Your task to perform on an android device: Search for "lg ultragear" on bestbuy, select the first entry, and add it to the cart. Image 0: 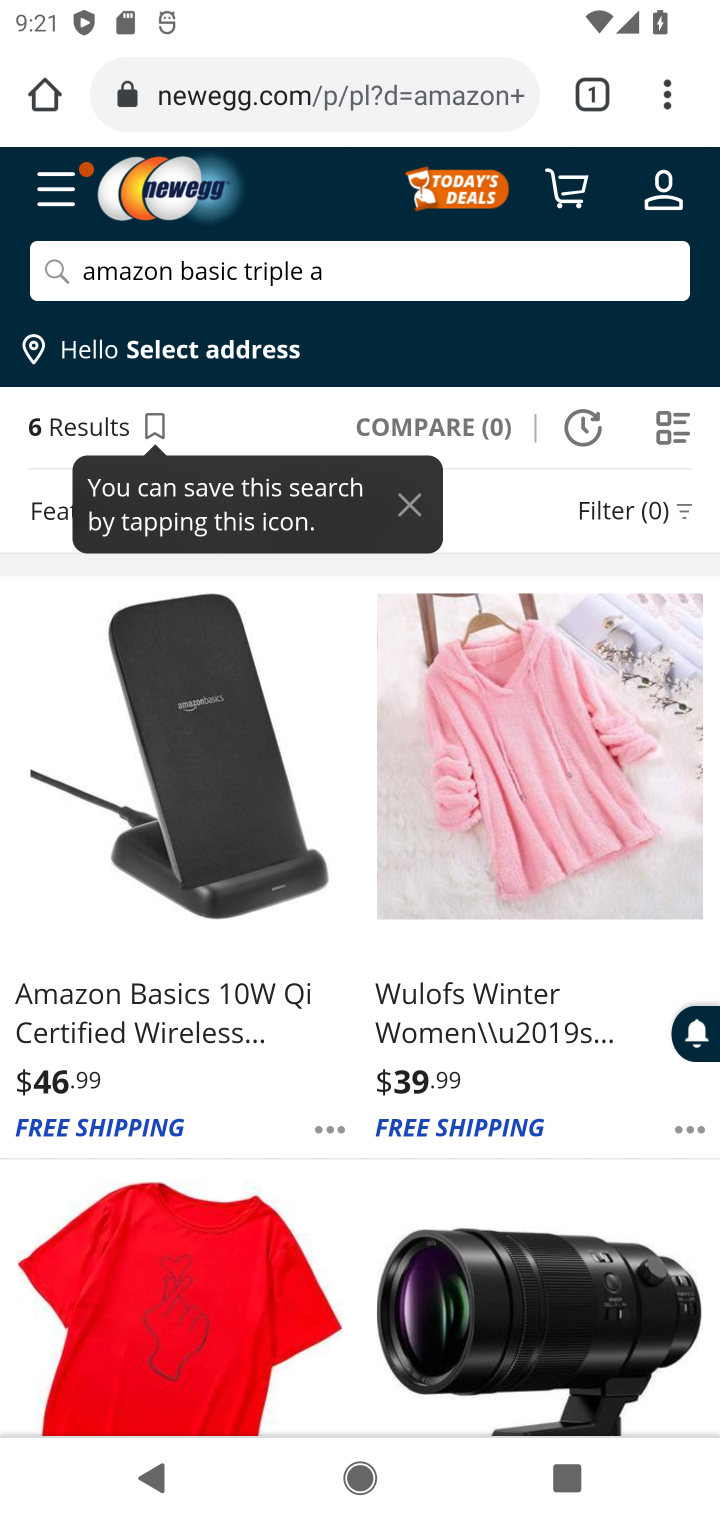
Step 0: press home button
Your task to perform on an android device: Search for "lg ultragear" on bestbuy, select the first entry, and add it to the cart. Image 1: 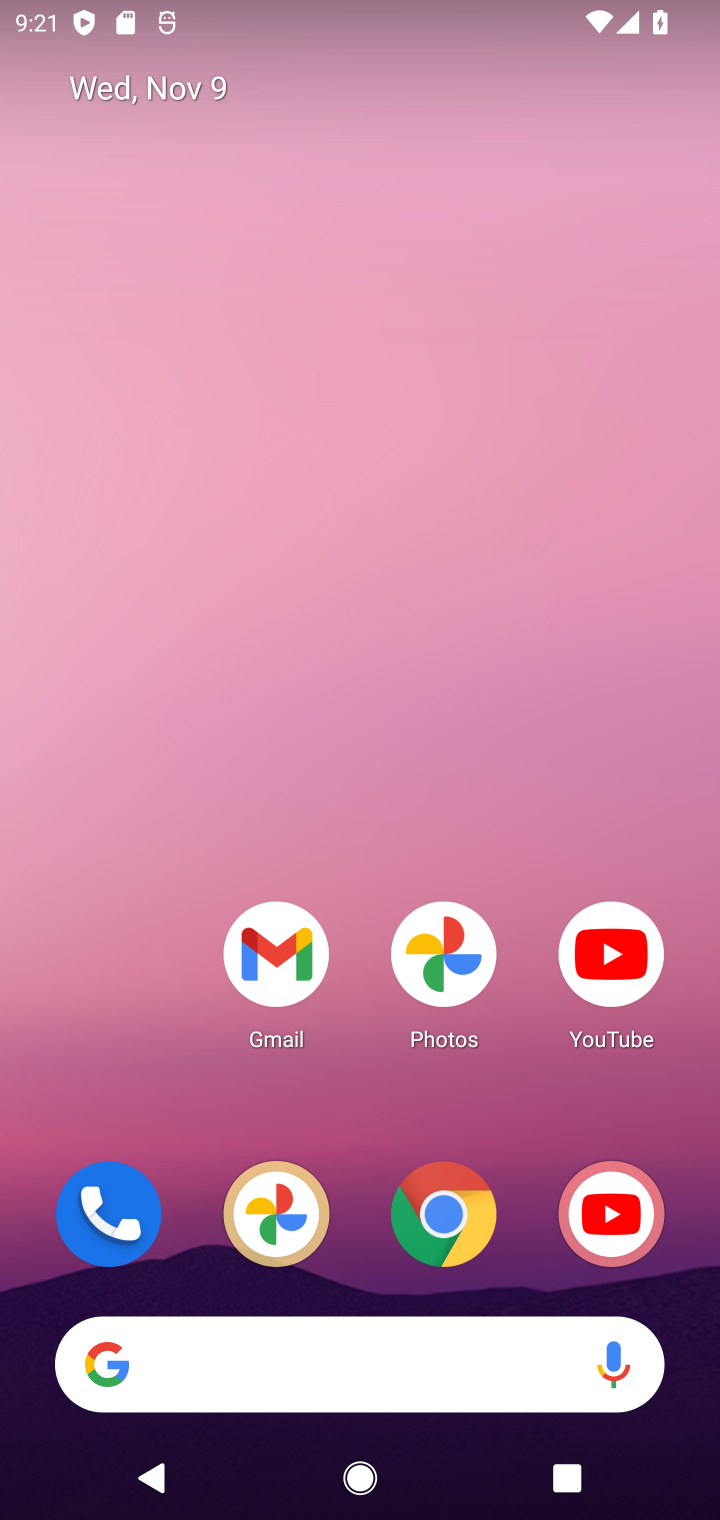
Step 1: drag from (397, 785) to (399, 8)
Your task to perform on an android device: Search for "lg ultragear" on bestbuy, select the first entry, and add it to the cart. Image 2: 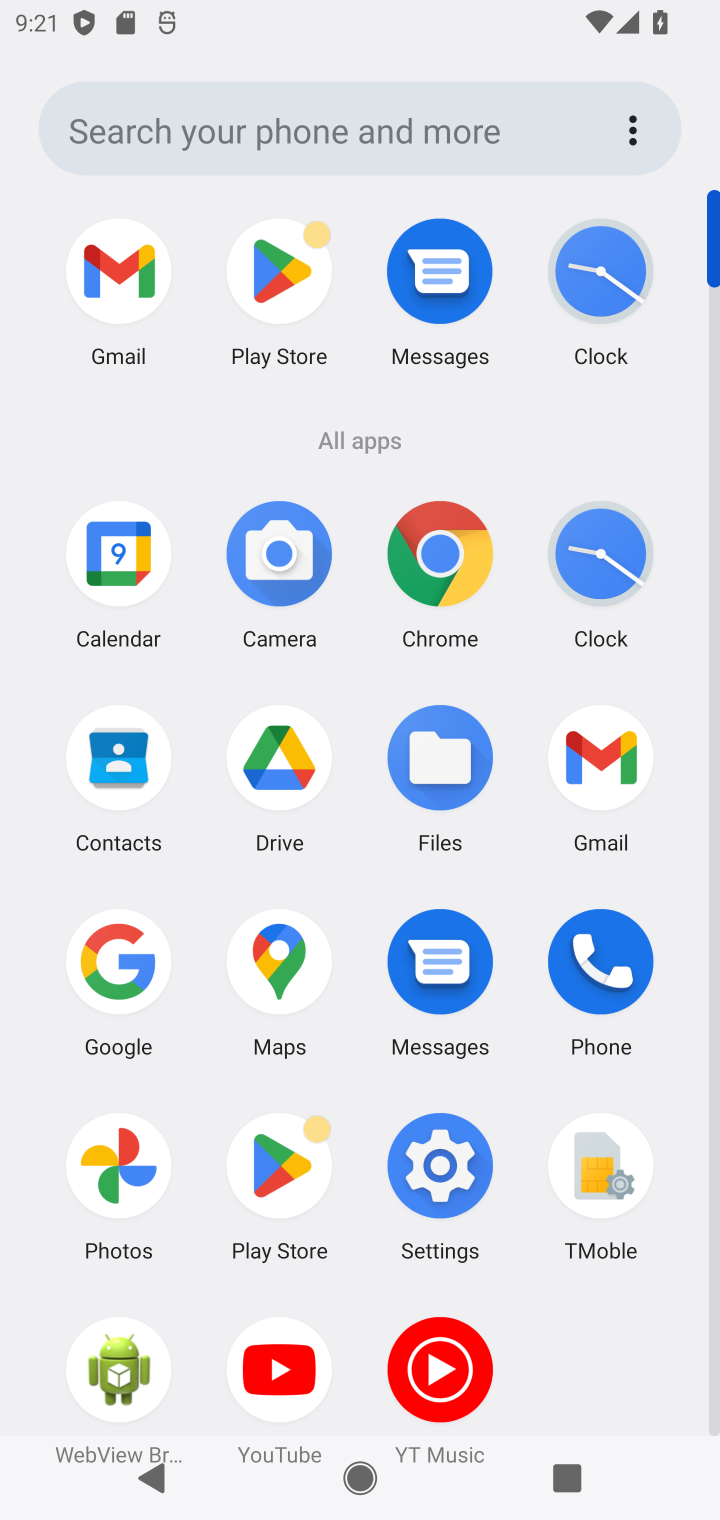
Step 2: click (450, 555)
Your task to perform on an android device: Search for "lg ultragear" on bestbuy, select the first entry, and add it to the cart. Image 3: 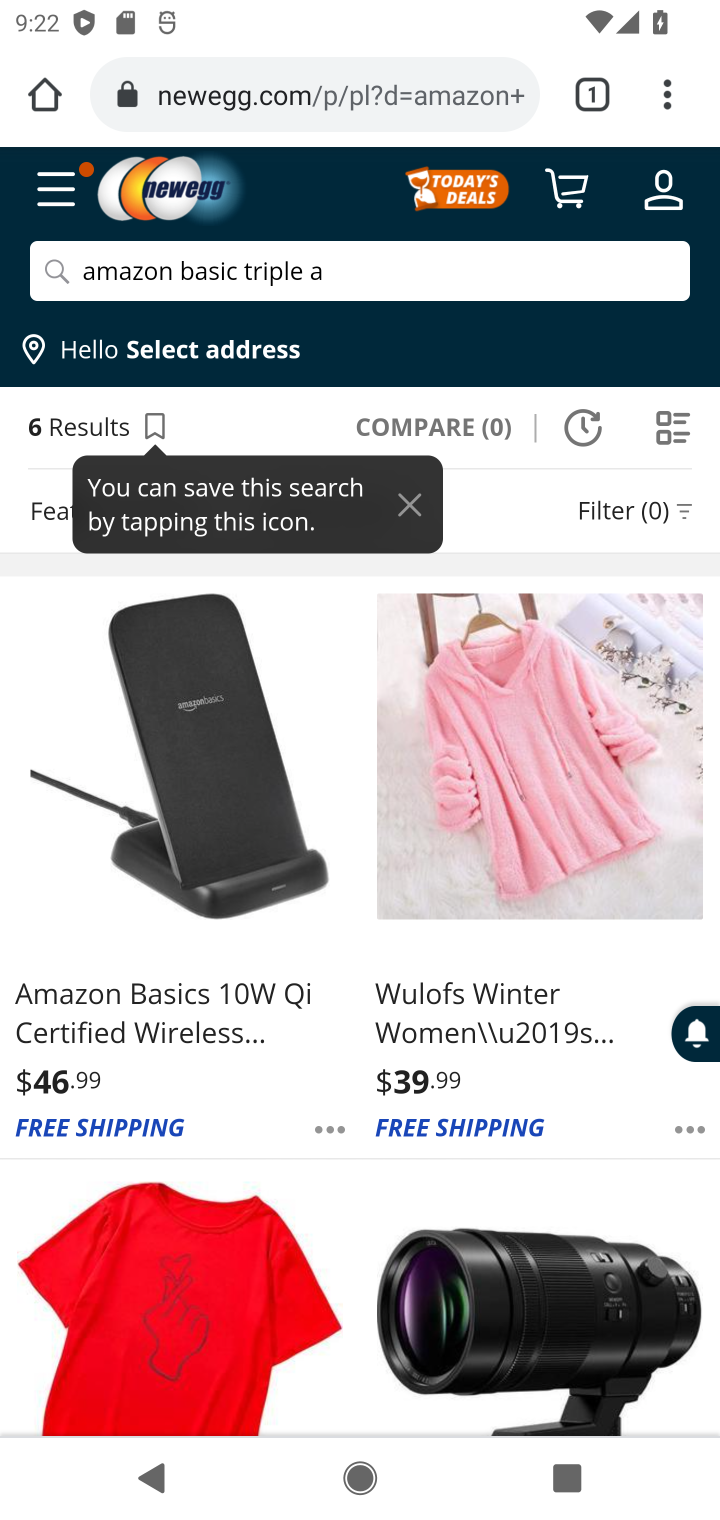
Step 3: click (357, 58)
Your task to perform on an android device: Search for "lg ultragear" on bestbuy, select the first entry, and add it to the cart. Image 4: 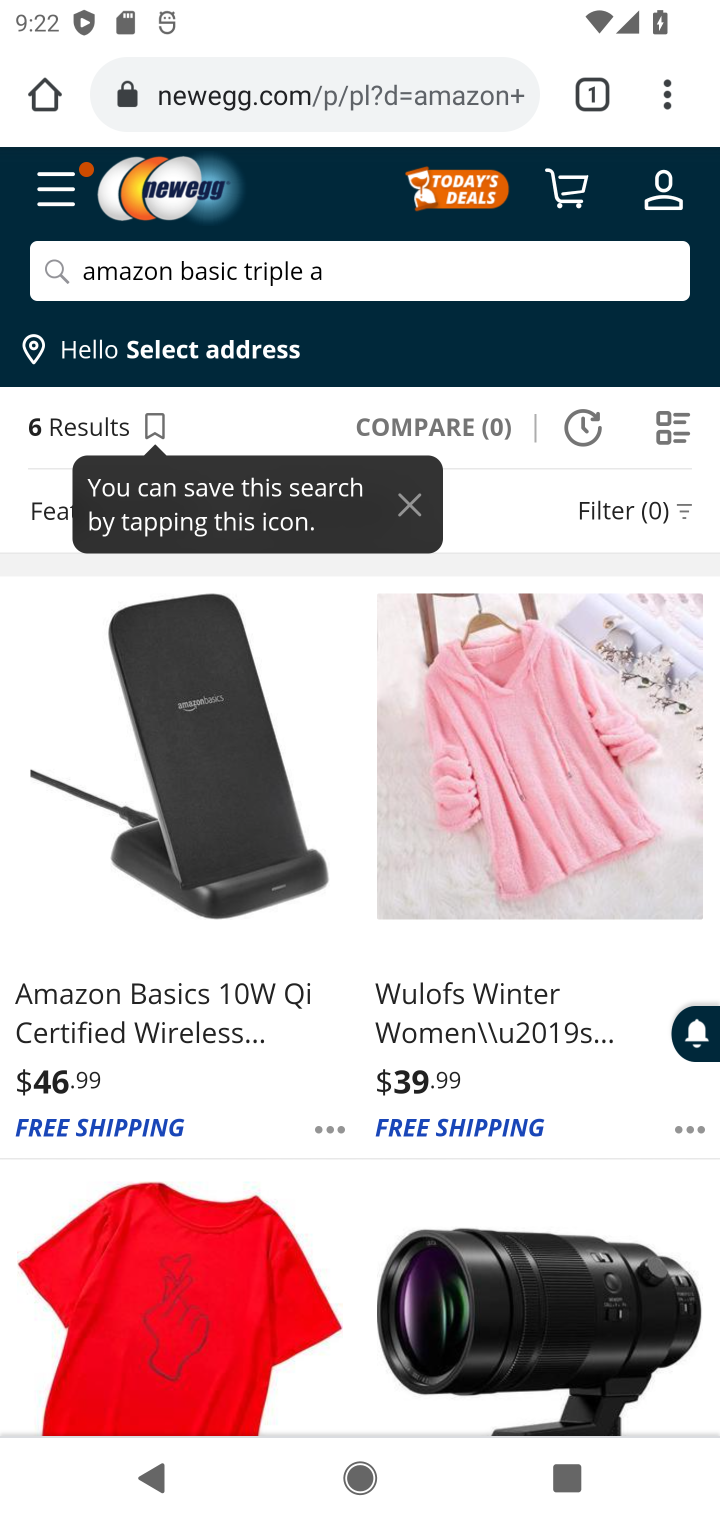
Step 4: click (333, 82)
Your task to perform on an android device: Search for "lg ultragear" on bestbuy, select the first entry, and add it to the cart. Image 5: 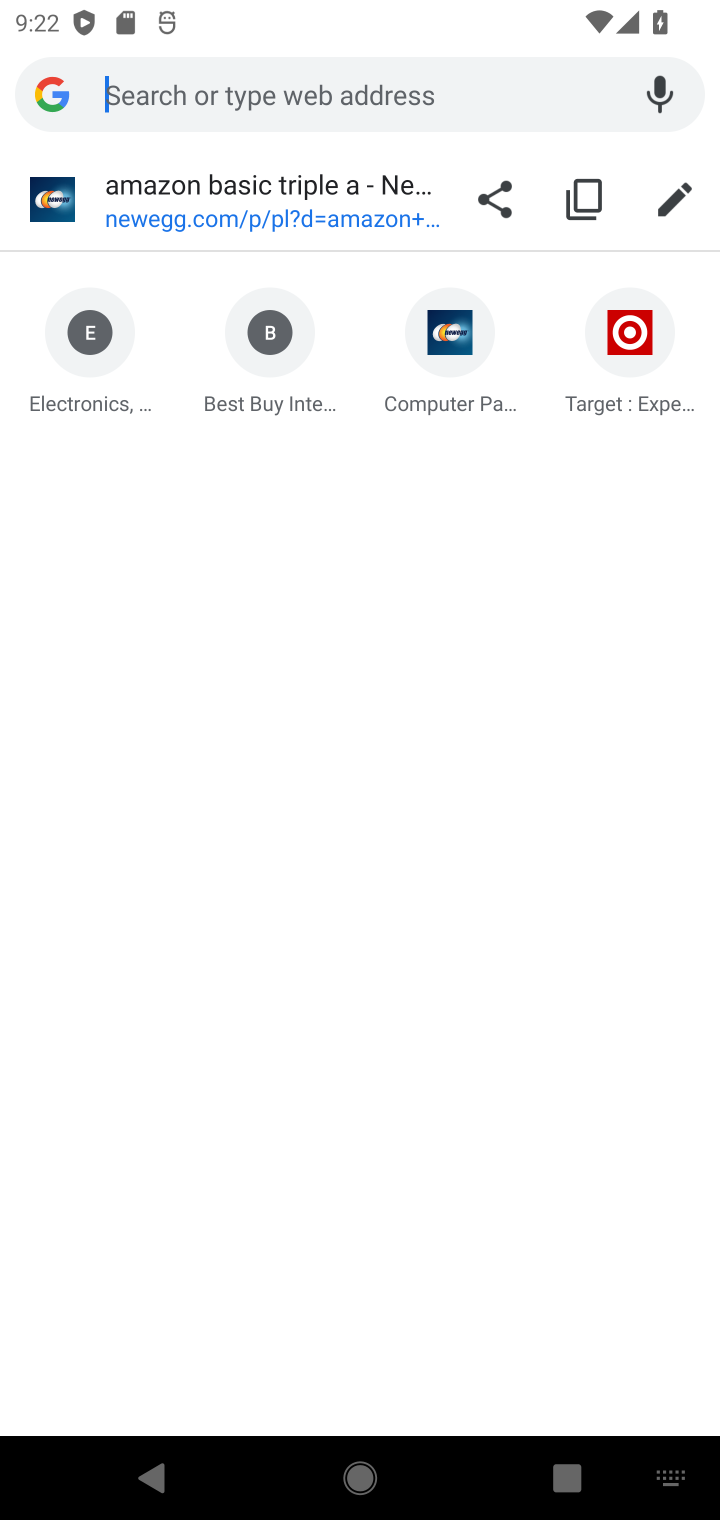
Step 5: type "bestbuy.com"
Your task to perform on an android device: Search for "lg ultragear" on bestbuy, select the first entry, and add it to the cart. Image 6: 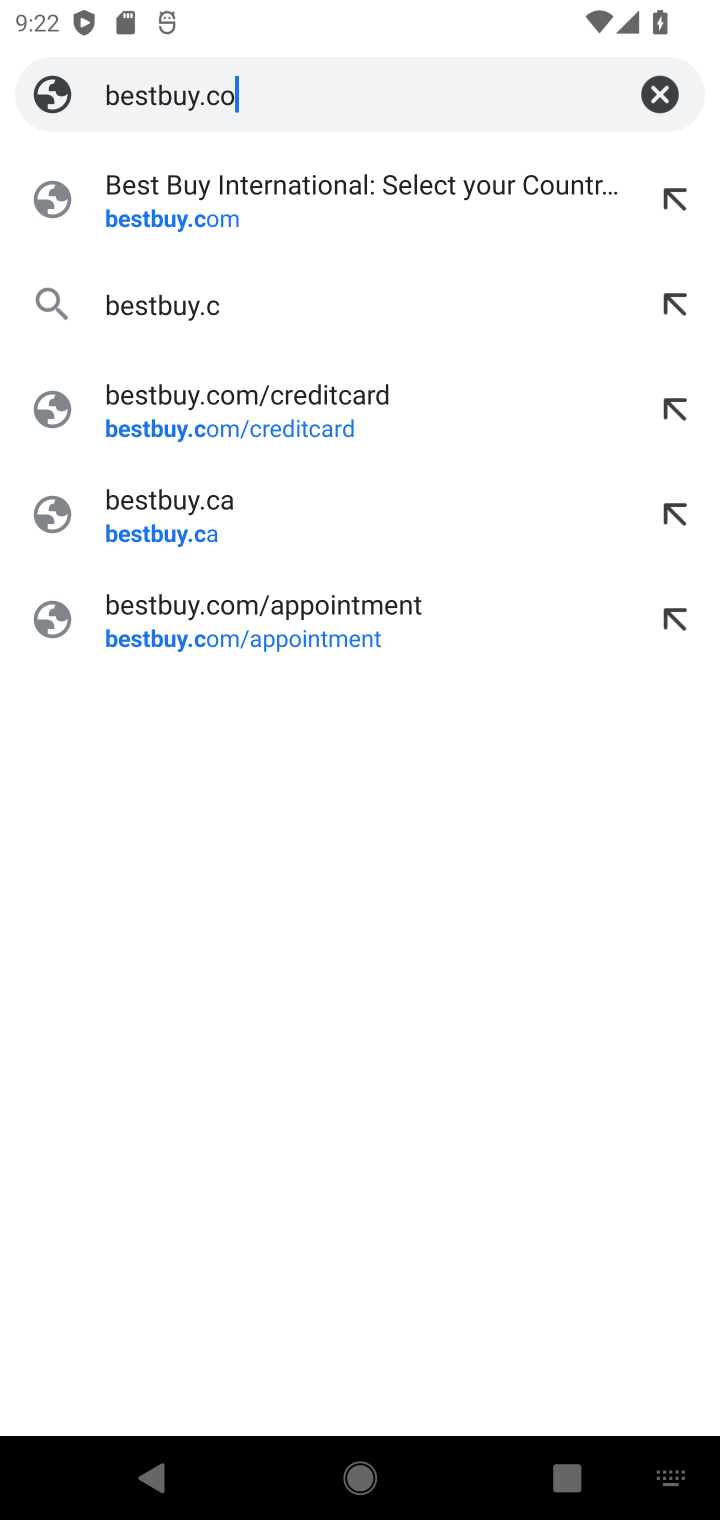
Step 6: press enter
Your task to perform on an android device: Search for "lg ultragear" on bestbuy, select the first entry, and add it to the cart. Image 7: 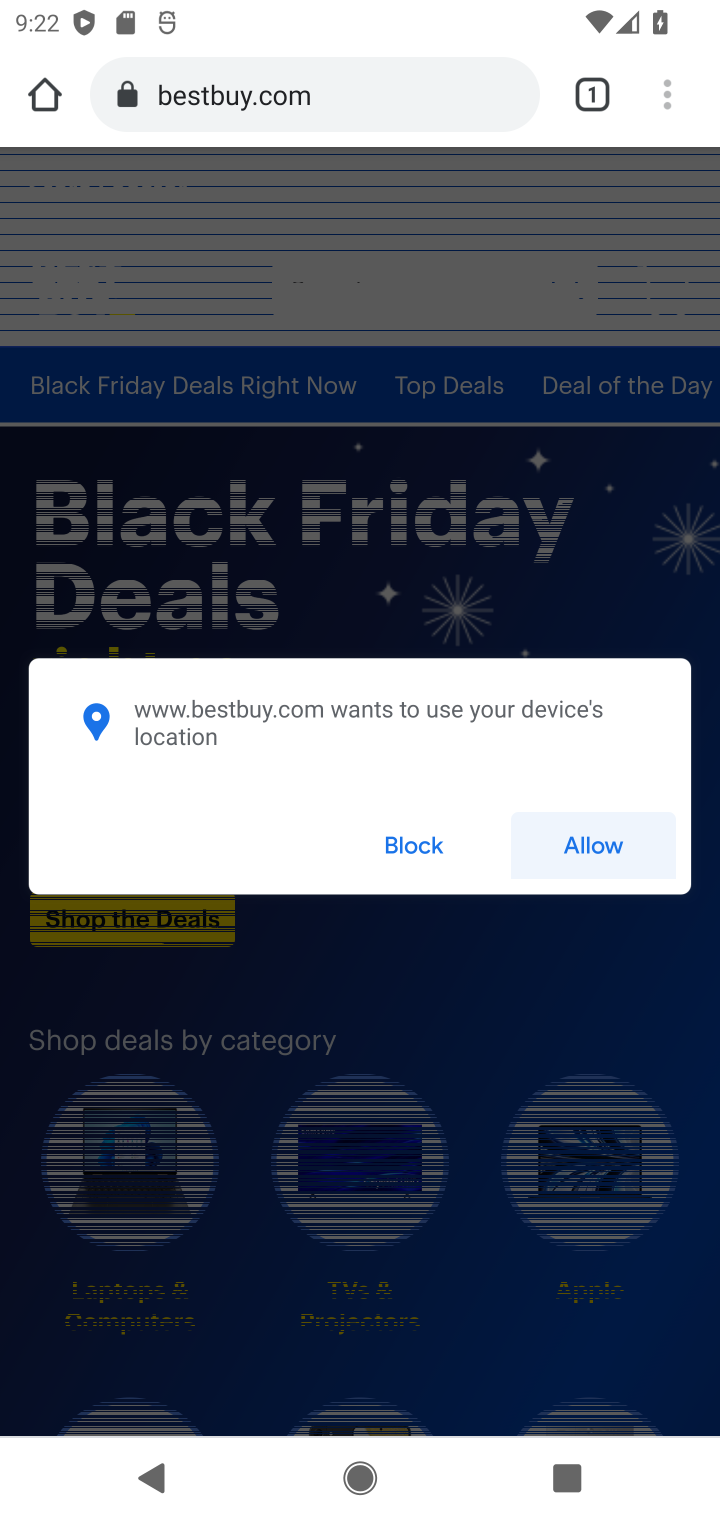
Step 7: click (426, 862)
Your task to perform on an android device: Search for "lg ultragear" on bestbuy, select the first entry, and add it to the cart. Image 8: 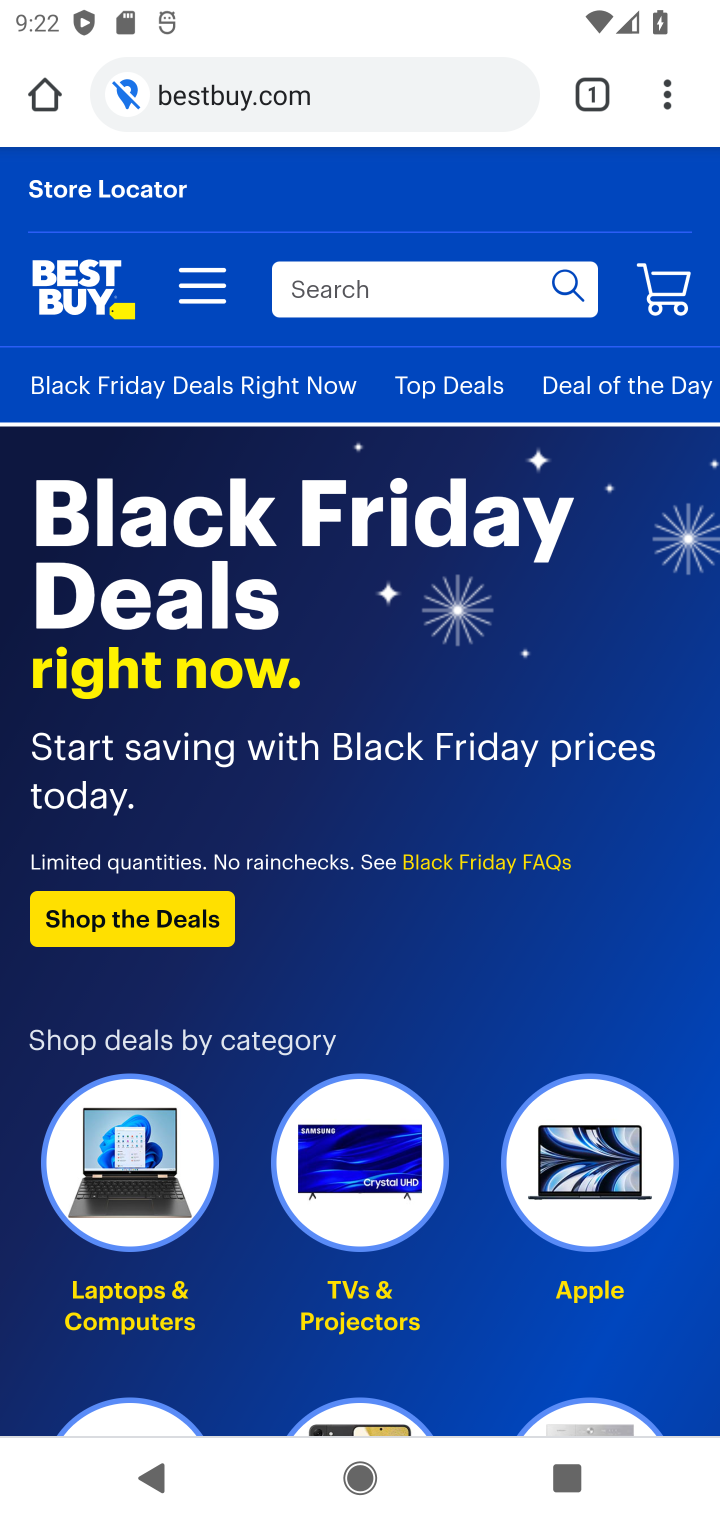
Step 8: click (484, 290)
Your task to perform on an android device: Search for "lg ultragear" on bestbuy, select the first entry, and add it to the cart. Image 9: 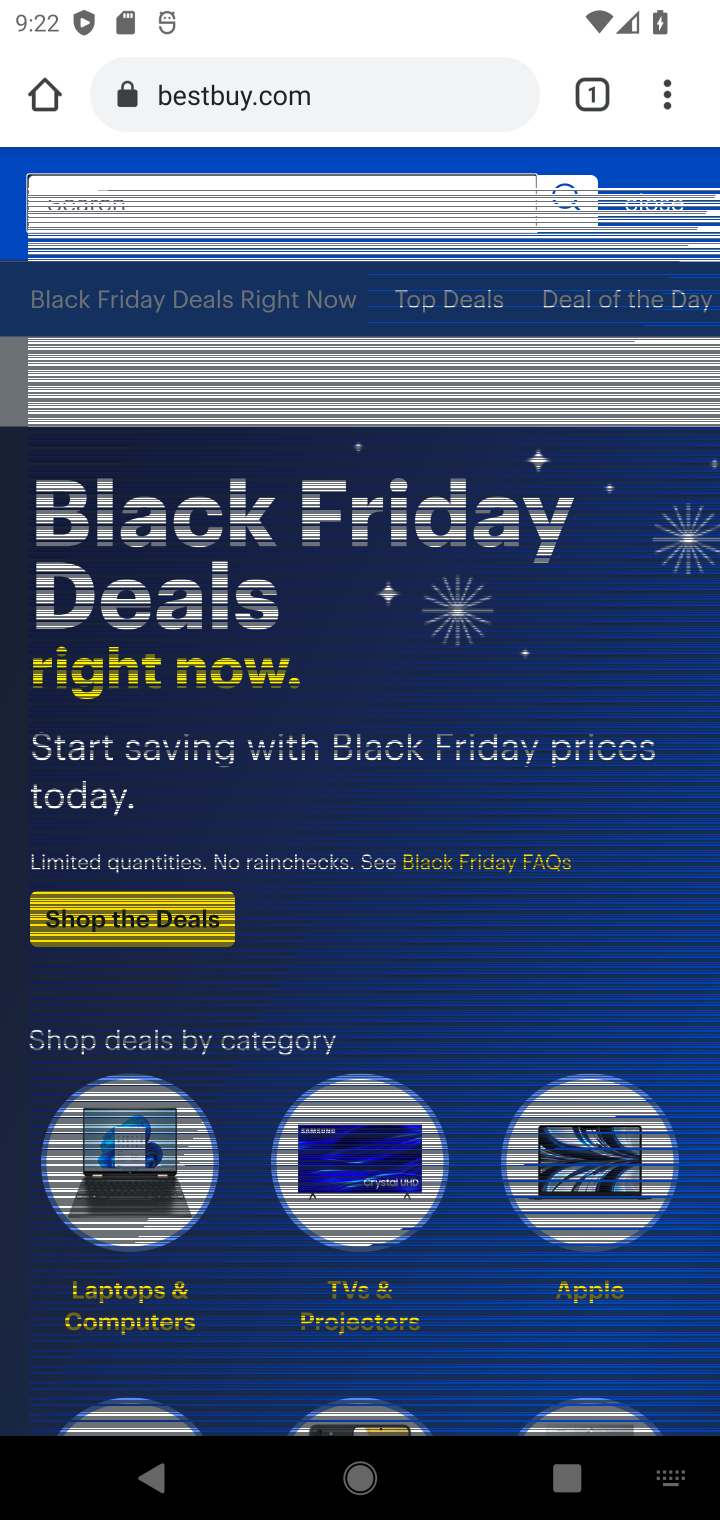
Step 9: type "lg ultragear"
Your task to perform on an android device: Search for "lg ultragear" on bestbuy, select the first entry, and add it to the cart. Image 10: 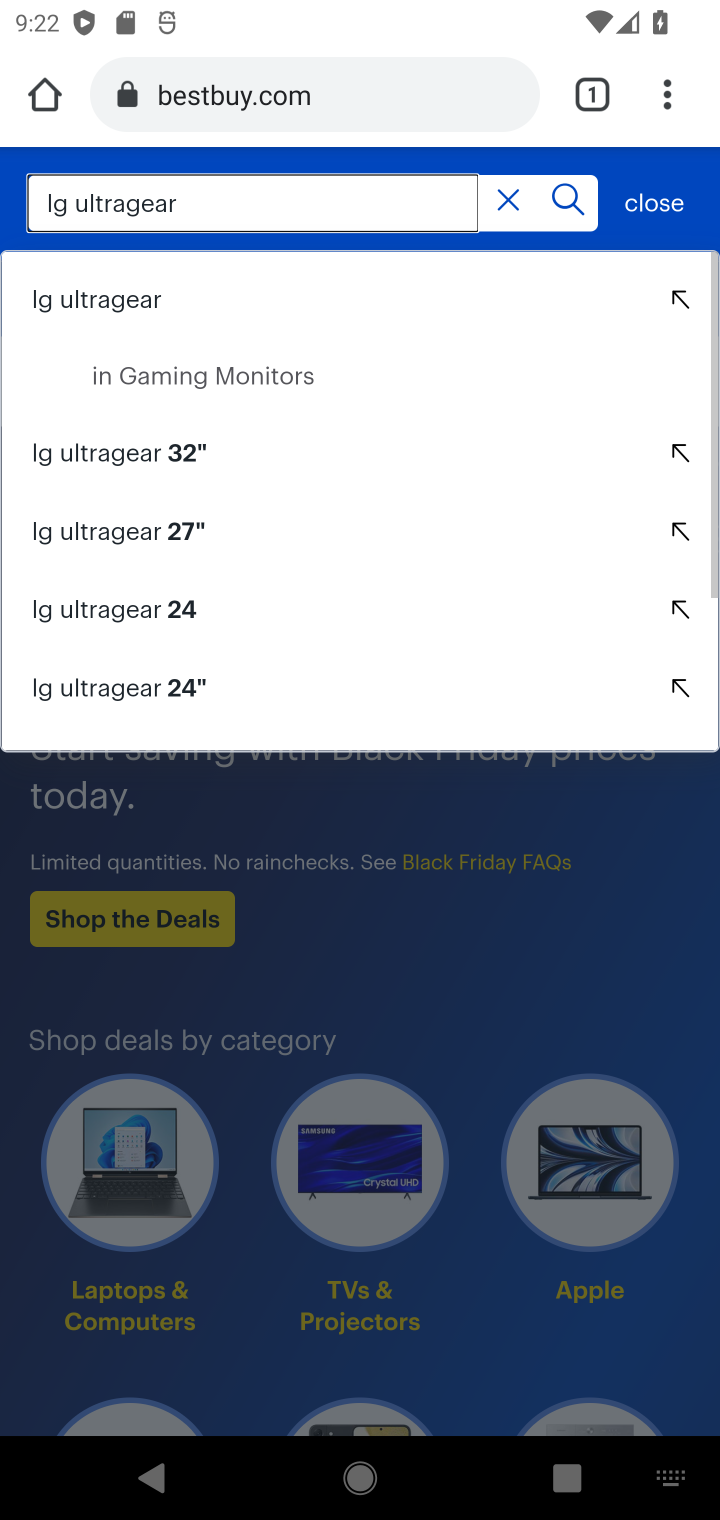
Step 10: press enter
Your task to perform on an android device: Search for "lg ultragear" on bestbuy, select the first entry, and add it to the cart. Image 11: 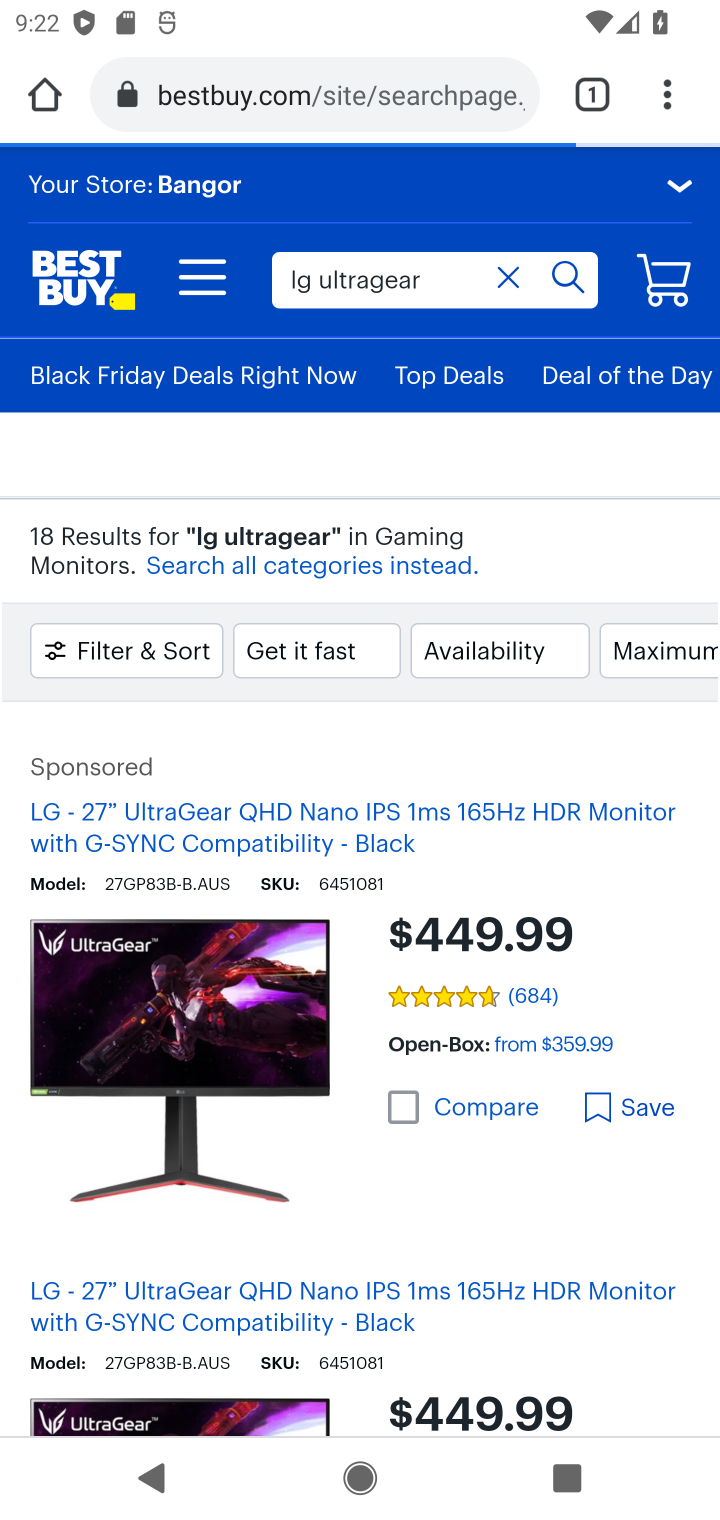
Step 11: drag from (400, 997) to (503, 542)
Your task to perform on an android device: Search for "lg ultragear" on bestbuy, select the first entry, and add it to the cart. Image 12: 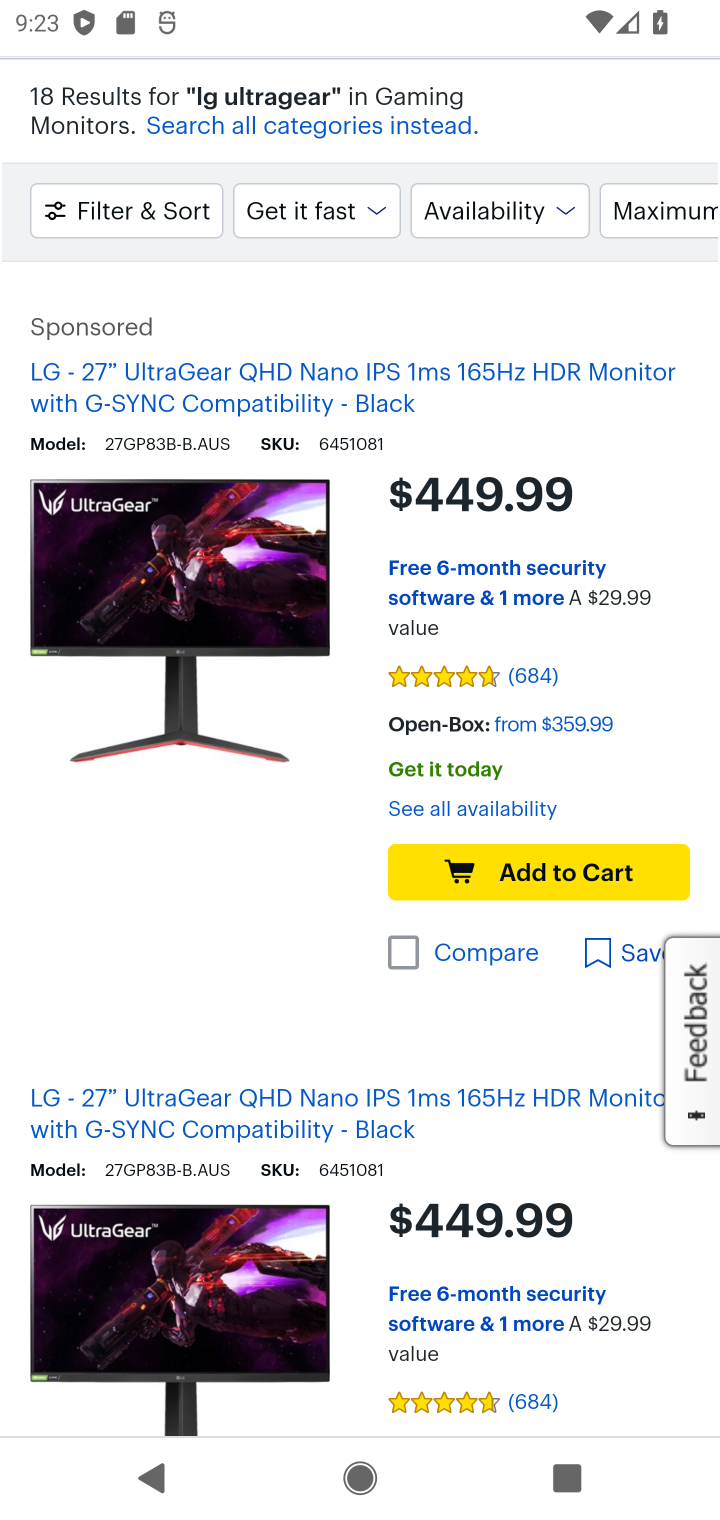
Step 12: drag from (335, 1147) to (301, 428)
Your task to perform on an android device: Search for "lg ultragear" on bestbuy, select the first entry, and add it to the cart. Image 13: 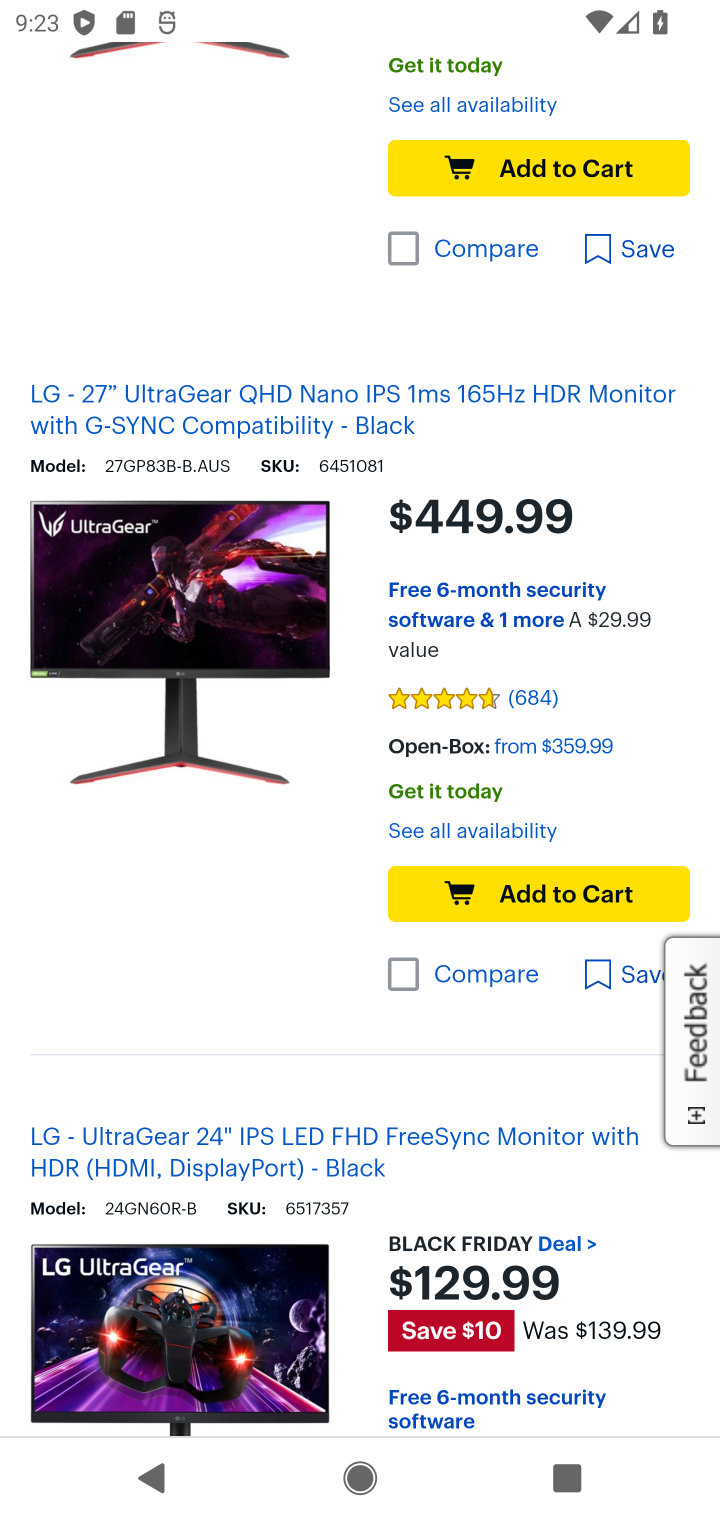
Step 13: click (550, 886)
Your task to perform on an android device: Search for "lg ultragear" on bestbuy, select the first entry, and add it to the cart. Image 14: 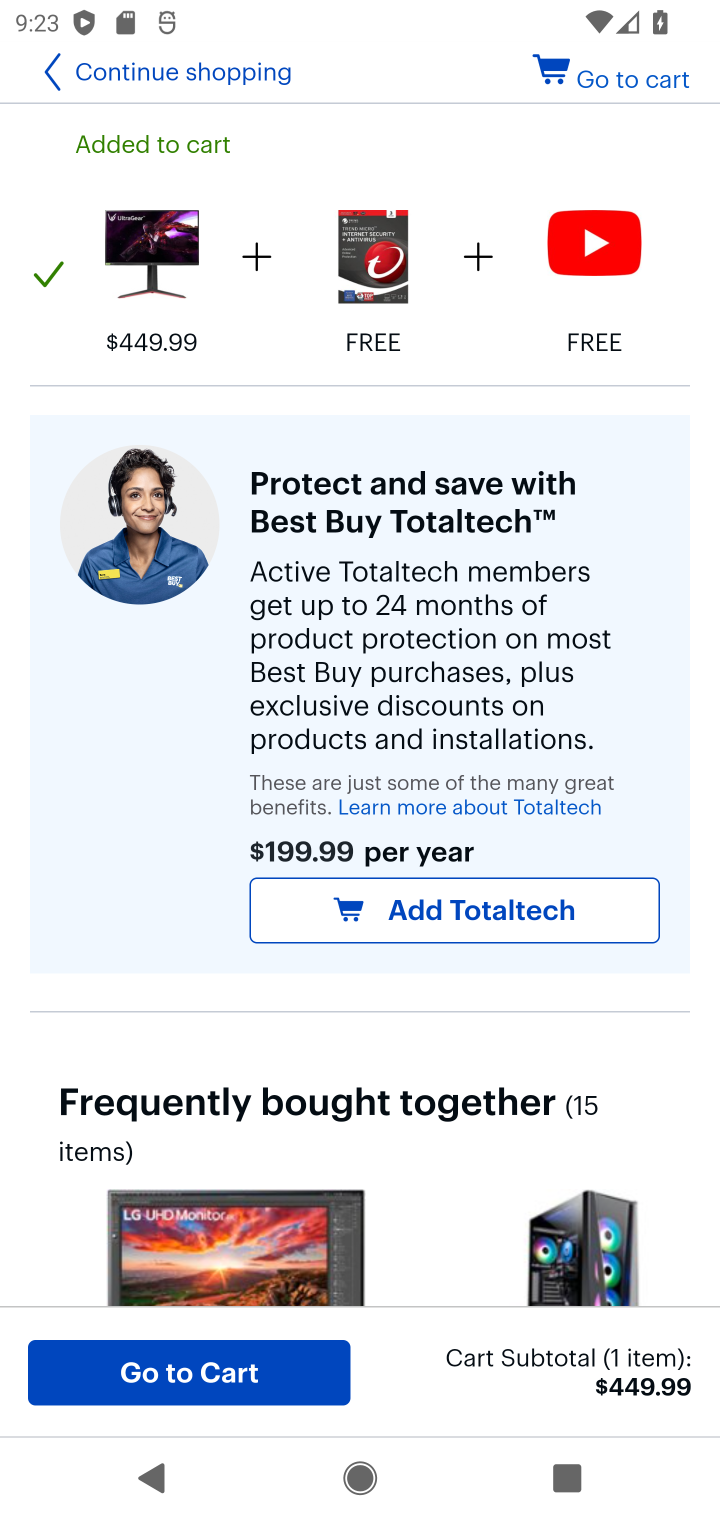
Step 14: task complete